Your task to perform on an android device: Open the Play Movies app and select the watchlist tab. Image 0: 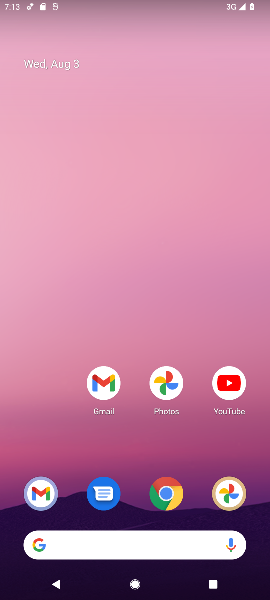
Step 0: drag from (131, 515) to (142, 219)
Your task to perform on an android device: Open the Play Movies app and select the watchlist tab. Image 1: 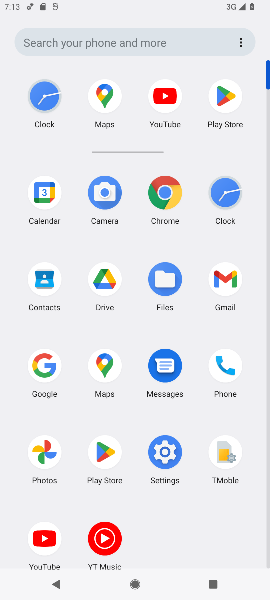
Step 1: click (108, 538)
Your task to perform on an android device: Open the Play Movies app and select the watchlist tab. Image 2: 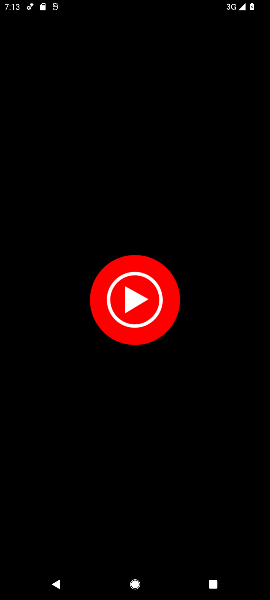
Step 2: press back button
Your task to perform on an android device: Open the Play Movies app and select the watchlist tab. Image 3: 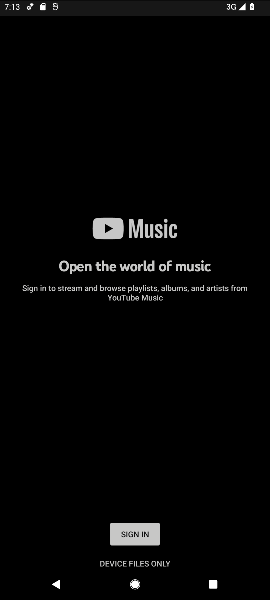
Step 3: press back button
Your task to perform on an android device: Open the Play Movies app and select the watchlist tab. Image 4: 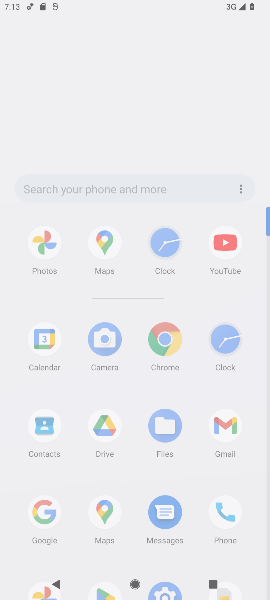
Step 4: press back button
Your task to perform on an android device: Open the Play Movies app and select the watchlist tab. Image 5: 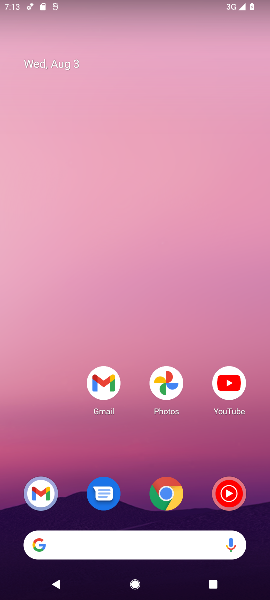
Step 5: drag from (131, 501) to (145, 160)
Your task to perform on an android device: Open the Play Movies app and select the watchlist tab. Image 6: 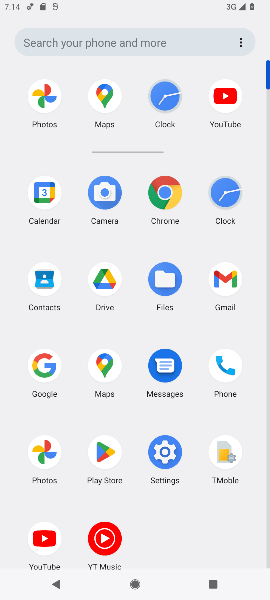
Step 6: drag from (147, 146) to (158, 468)
Your task to perform on an android device: Open the Play Movies app and select the watchlist tab. Image 7: 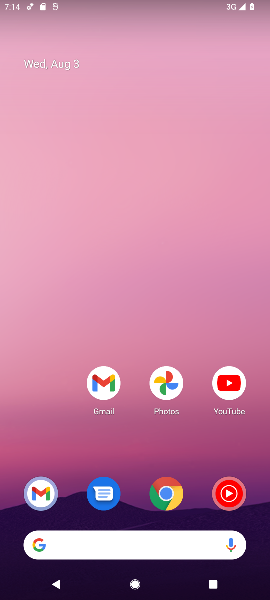
Step 7: drag from (126, 508) to (126, 168)
Your task to perform on an android device: Open the Play Movies app and select the watchlist tab. Image 8: 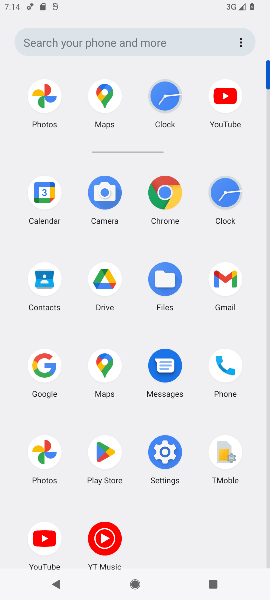
Step 8: click (112, 527)
Your task to perform on an android device: Open the Play Movies app and select the watchlist tab. Image 9: 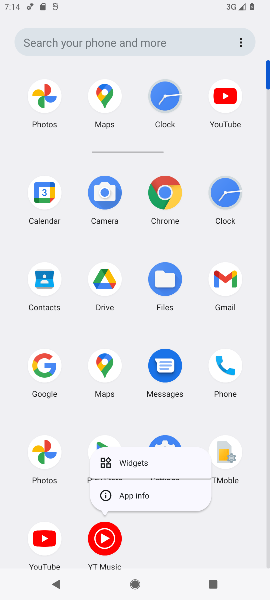
Step 9: click (112, 527)
Your task to perform on an android device: Open the Play Movies app and select the watchlist tab. Image 10: 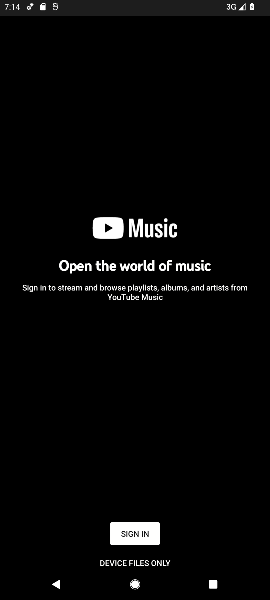
Step 10: click (145, 529)
Your task to perform on an android device: Open the Play Movies app and select the watchlist tab. Image 11: 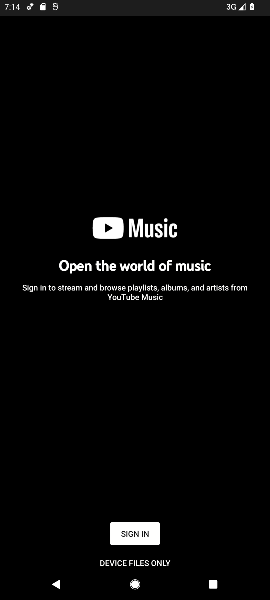
Step 11: task complete